Your task to perform on an android device: turn off location history Image 0: 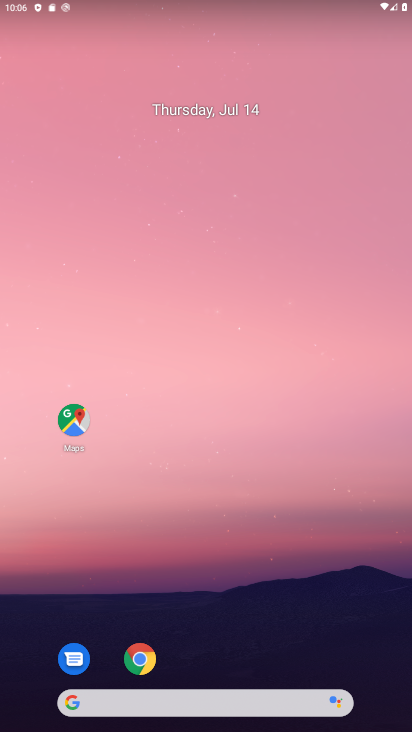
Step 0: drag from (212, 678) to (214, 330)
Your task to perform on an android device: turn off location history Image 1: 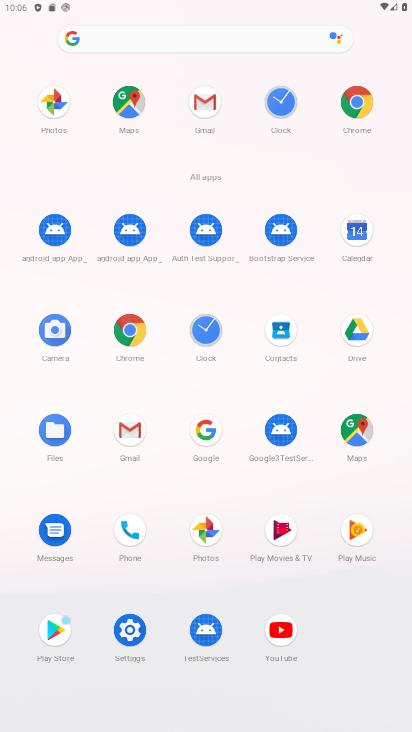
Step 1: click (126, 628)
Your task to perform on an android device: turn off location history Image 2: 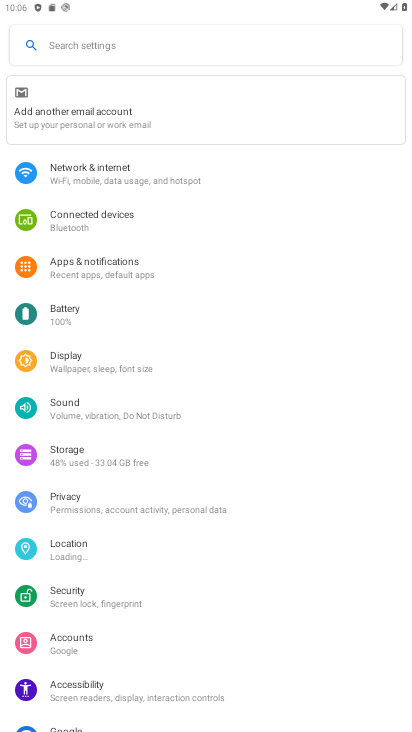
Step 2: click (106, 543)
Your task to perform on an android device: turn off location history Image 3: 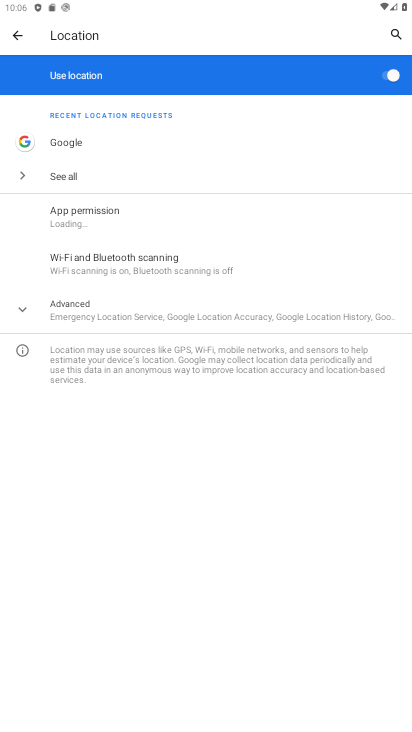
Step 3: click (144, 305)
Your task to perform on an android device: turn off location history Image 4: 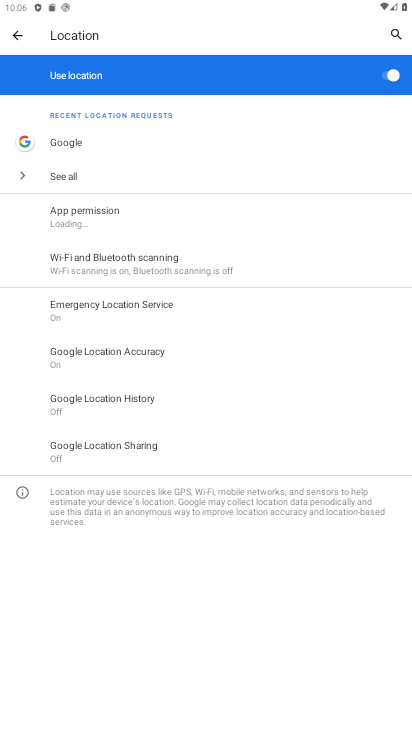
Step 4: click (126, 402)
Your task to perform on an android device: turn off location history Image 5: 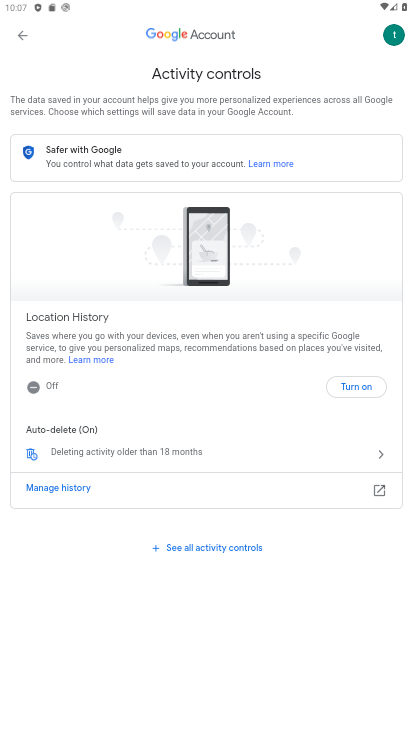
Step 5: task complete